Your task to perform on an android device: turn on bluetooth scan Image 0: 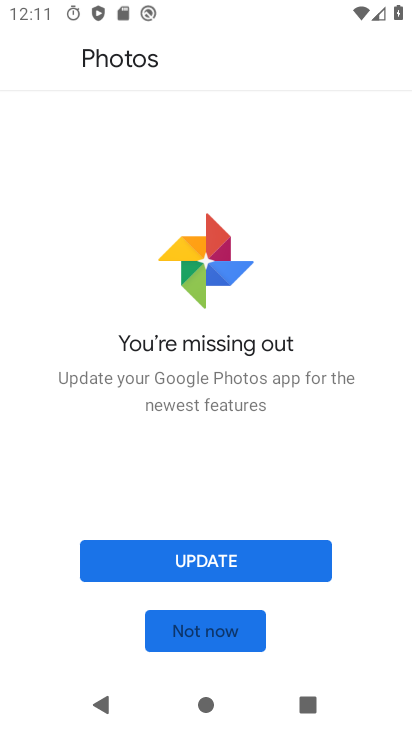
Step 0: press home button
Your task to perform on an android device: turn on bluetooth scan Image 1: 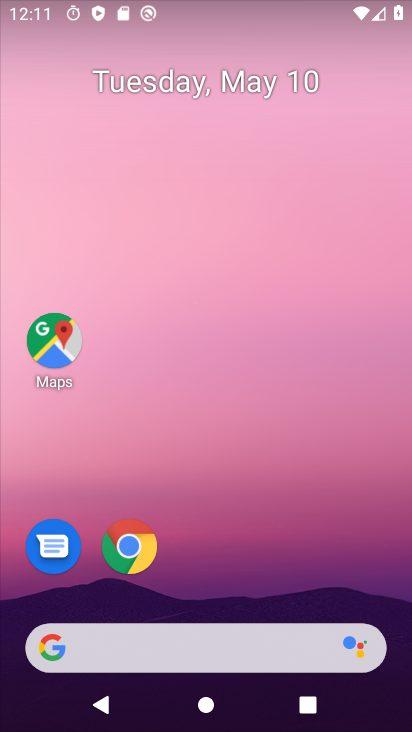
Step 1: drag from (298, 546) to (372, 0)
Your task to perform on an android device: turn on bluetooth scan Image 2: 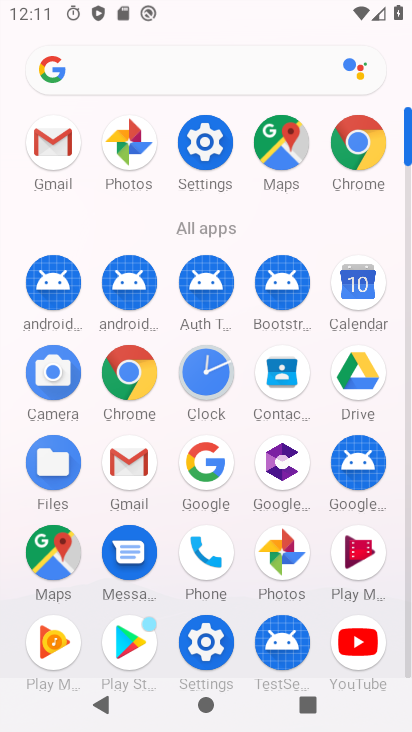
Step 2: click (202, 147)
Your task to perform on an android device: turn on bluetooth scan Image 3: 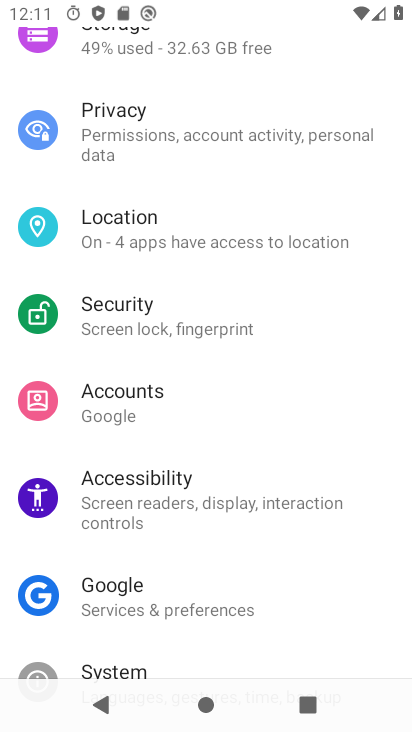
Step 3: drag from (214, 577) to (223, 124)
Your task to perform on an android device: turn on bluetooth scan Image 4: 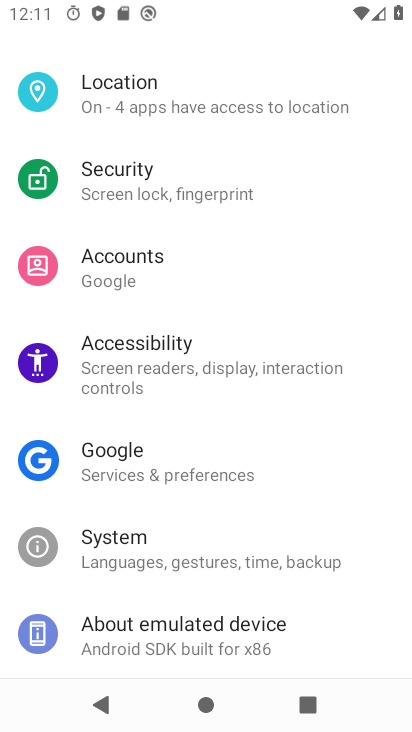
Step 4: click (218, 118)
Your task to perform on an android device: turn on bluetooth scan Image 5: 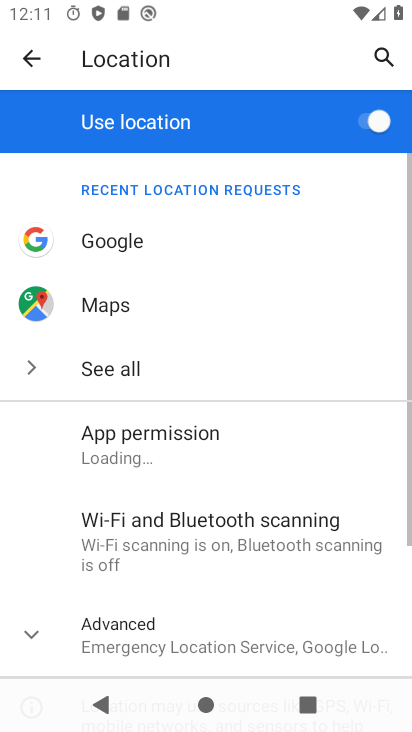
Step 5: drag from (245, 569) to (220, 498)
Your task to perform on an android device: turn on bluetooth scan Image 6: 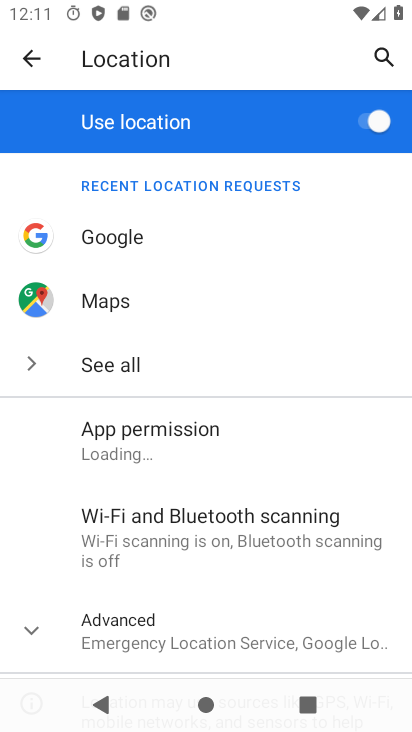
Step 6: click (223, 509)
Your task to perform on an android device: turn on bluetooth scan Image 7: 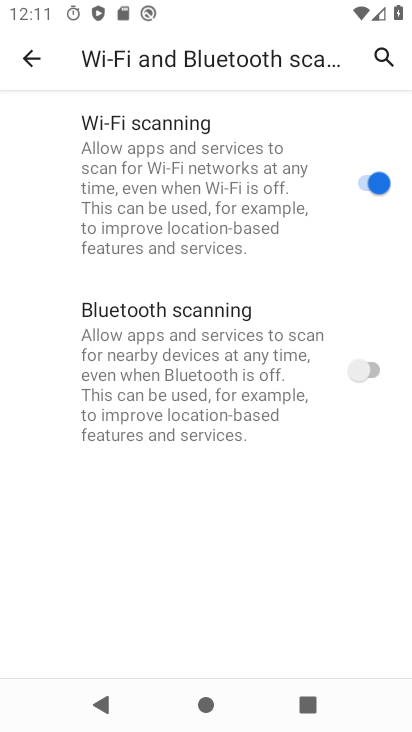
Step 7: click (299, 379)
Your task to perform on an android device: turn on bluetooth scan Image 8: 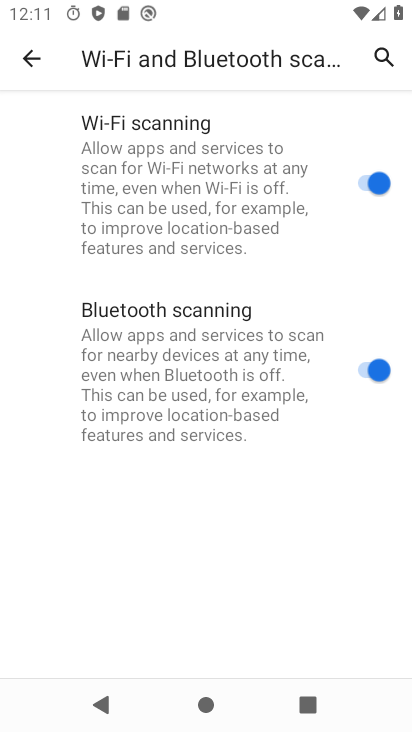
Step 8: task complete